Your task to perform on an android device: toggle airplane mode Image 0: 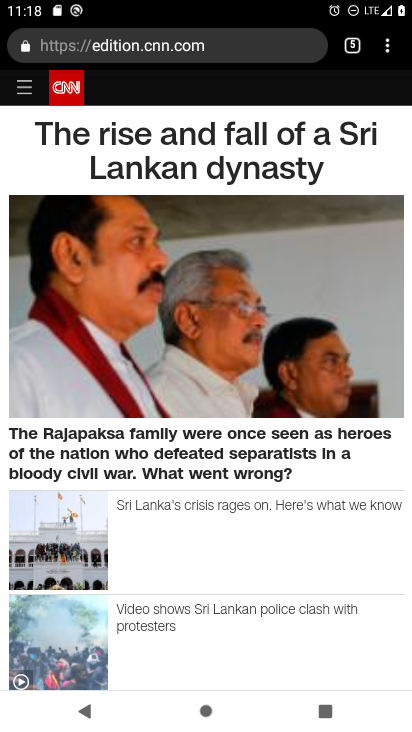
Step 0: press home button
Your task to perform on an android device: toggle airplane mode Image 1: 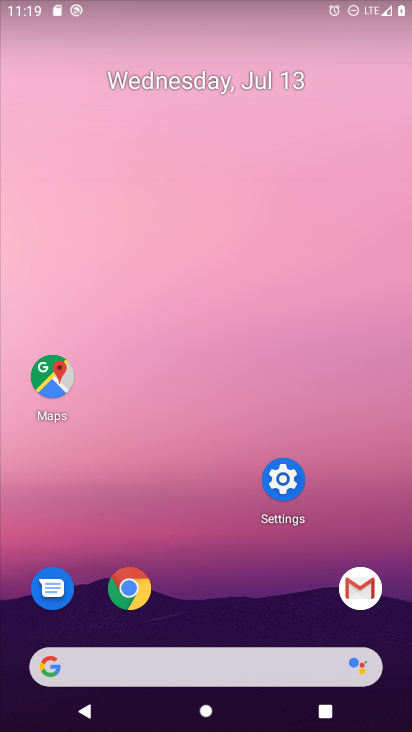
Step 1: click (266, 503)
Your task to perform on an android device: toggle airplane mode Image 2: 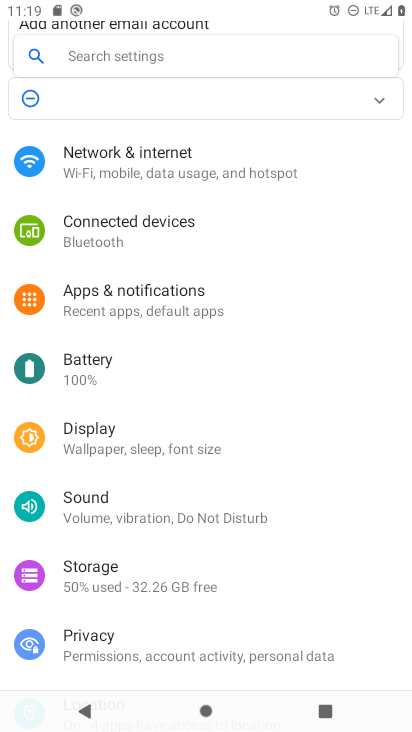
Step 2: click (149, 178)
Your task to perform on an android device: toggle airplane mode Image 3: 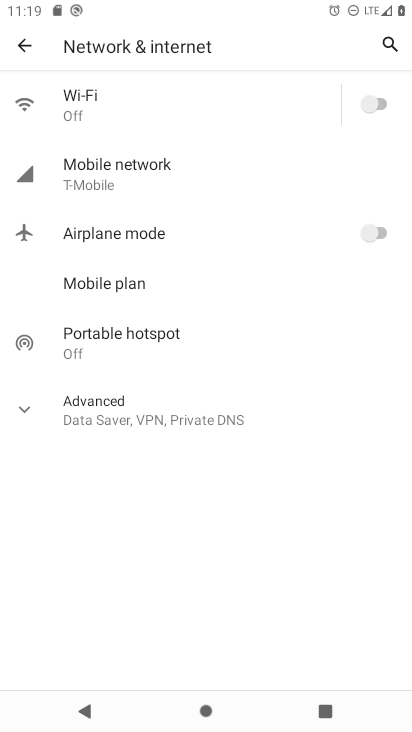
Step 3: click (365, 238)
Your task to perform on an android device: toggle airplane mode Image 4: 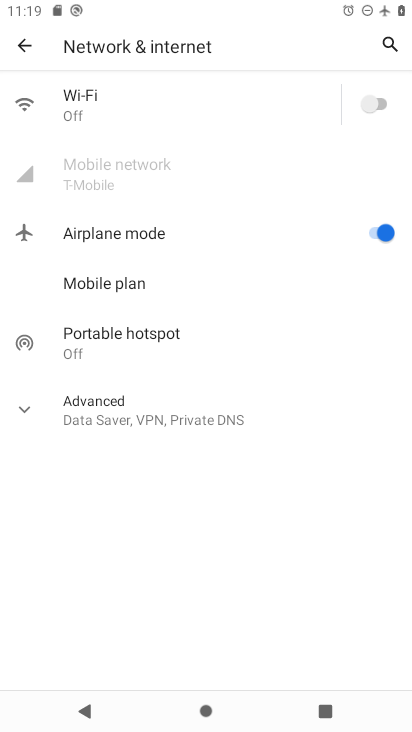
Step 4: click (365, 238)
Your task to perform on an android device: toggle airplane mode Image 5: 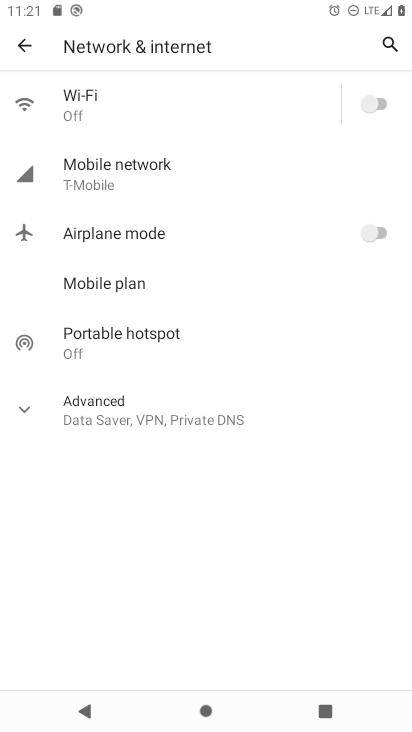
Step 5: task complete